Your task to perform on an android device: Open wifi settings Image 0: 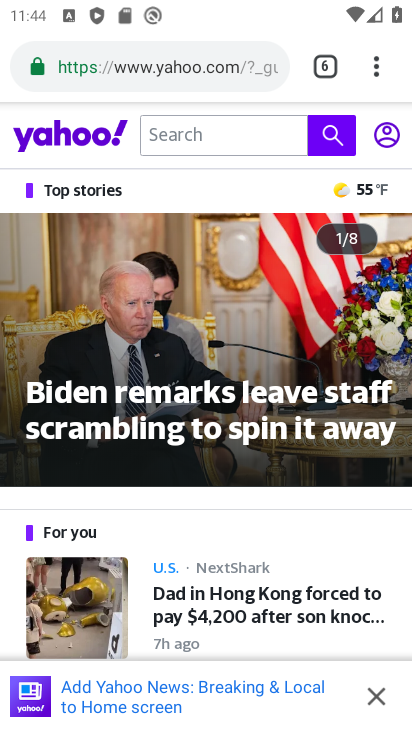
Step 0: press home button
Your task to perform on an android device: Open wifi settings Image 1: 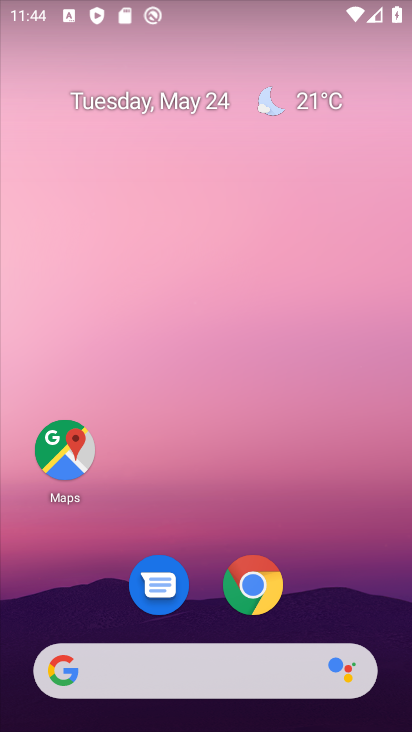
Step 1: drag from (235, 479) to (256, 42)
Your task to perform on an android device: Open wifi settings Image 2: 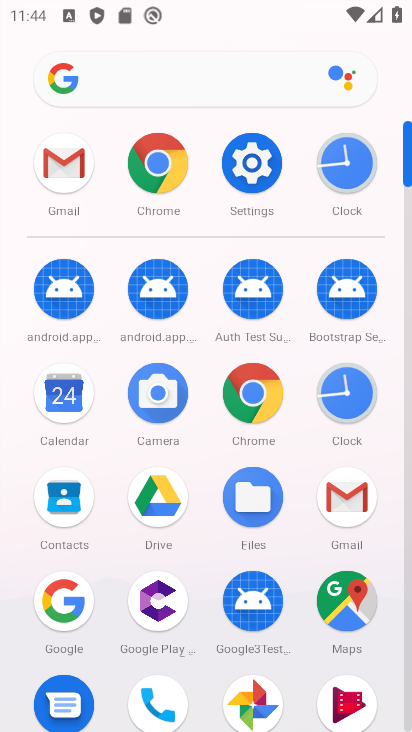
Step 2: click (250, 164)
Your task to perform on an android device: Open wifi settings Image 3: 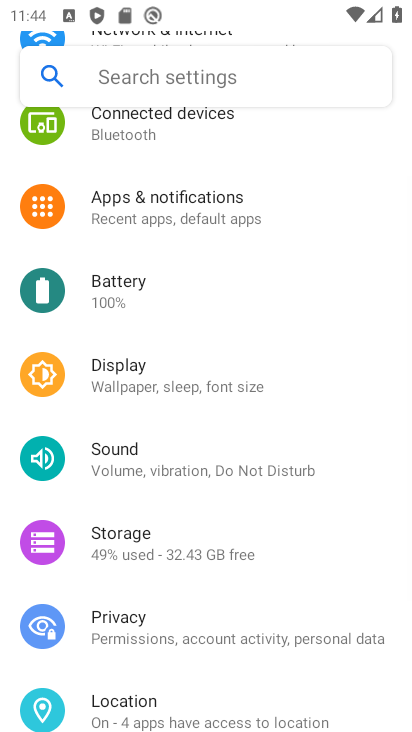
Step 3: drag from (243, 254) to (217, 542)
Your task to perform on an android device: Open wifi settings Image 4: 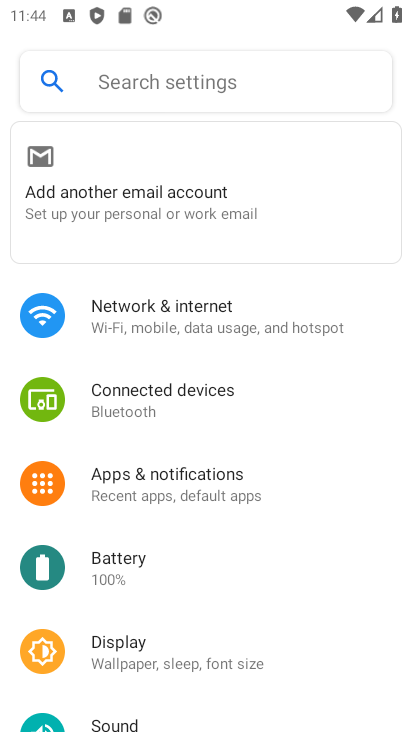
Step 4: click (244, 325)
Your task to perform on an android device: Open wifi settings Image 5: 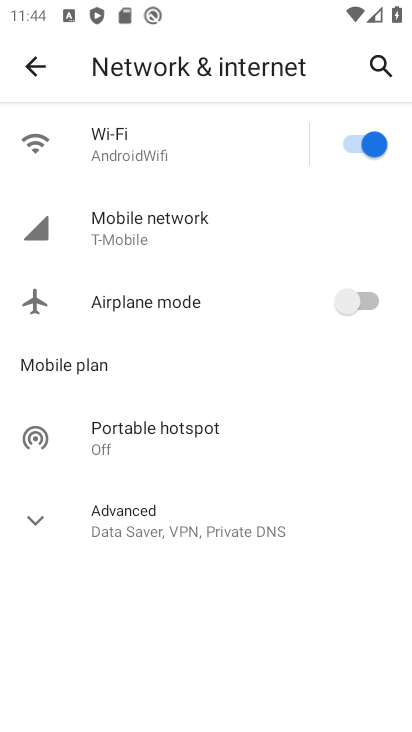
Step 5: click (149, 147)
Your task to perform on an android device: Open wifi settings Image 6: 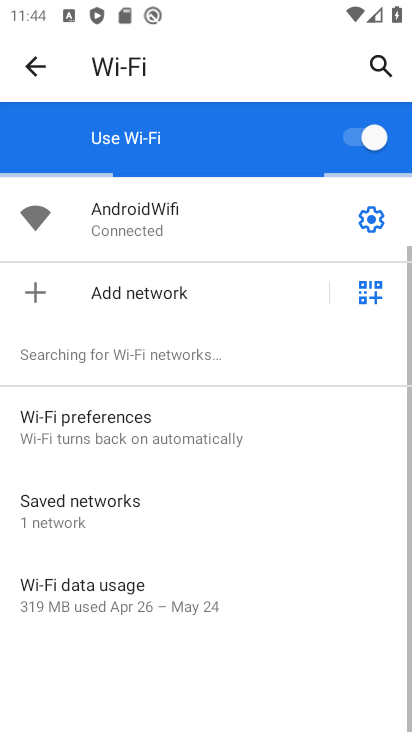
Step 6: task complete